Your task to perform on an android device: Go to ESPN.com Image 0: 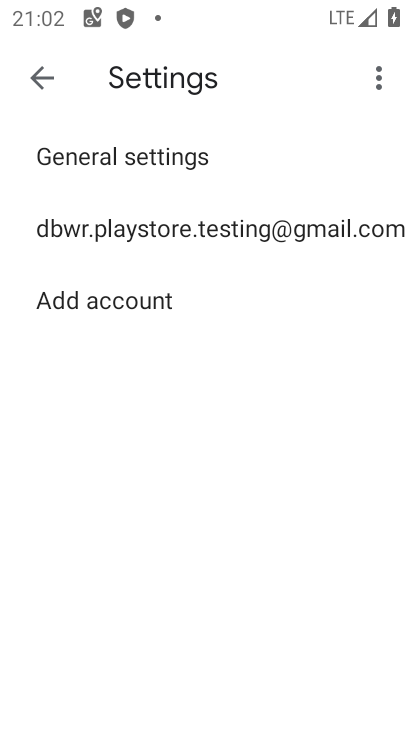
Step 0: press home button
Your task to perform on an android device: Go to ESPN.com Image 1: 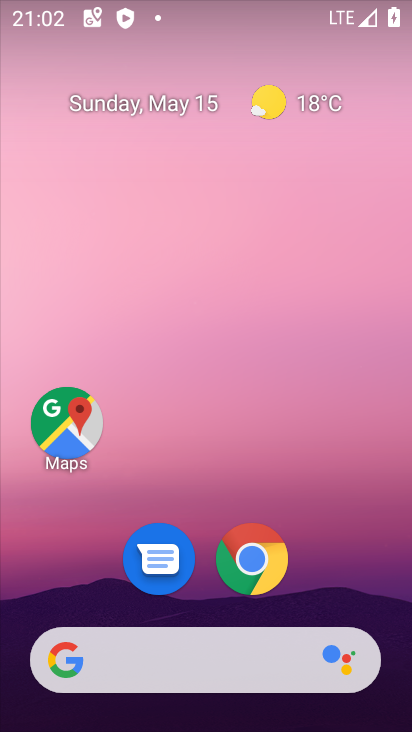
Step 1: click (261, 549)
Your task to perform on an android device: Go to ESPN.com Image 2: 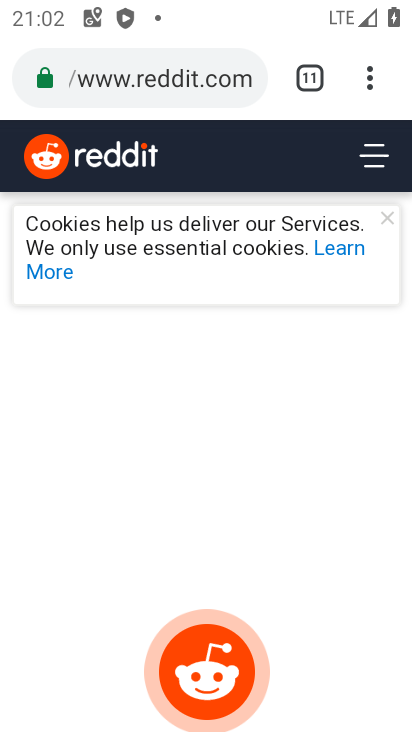
Step 2: click (366, 74)
Your task to perform on an android device: Go to ESPN.com Image 3: 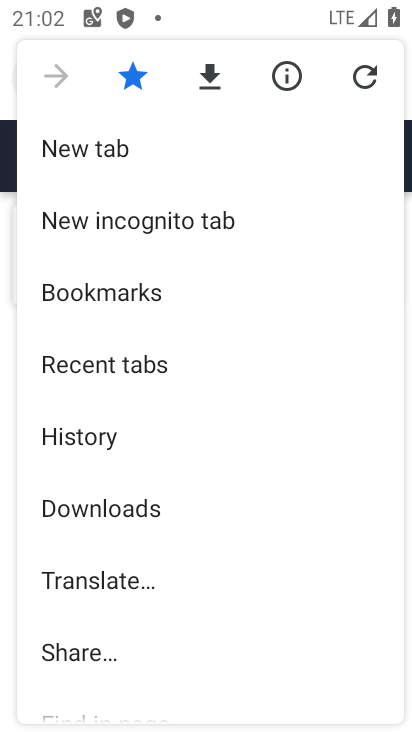
Step 3: click (81, 147)
Your task to perform on an android device: Go to ESPN.com Image 4: 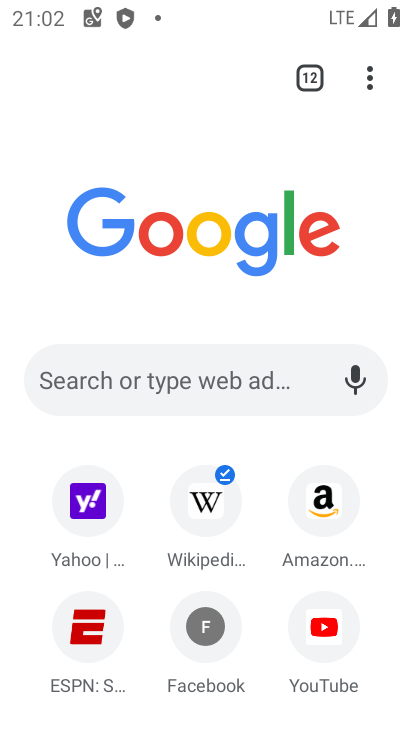
Step 4: click (84, 634)
Your task to perform on an android device: Go to ESPN.com Image 5: 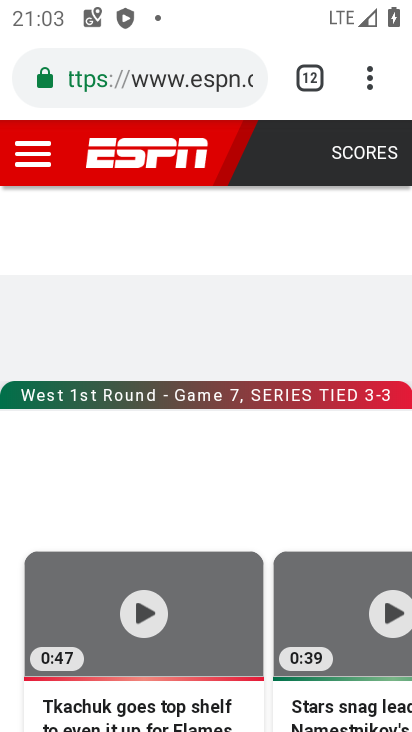
Step 5: task complete